Your task to perform on an android device: check storage Image 0: 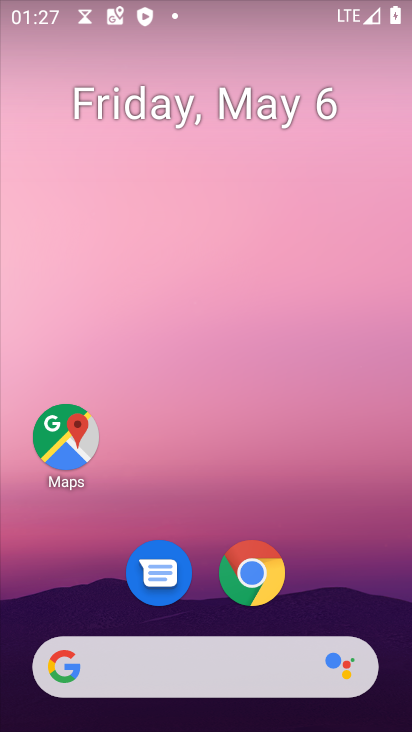
Step 0: drag from (311, 579) to (331, 232)
Your task to perform on an android device: check storage Image 1: 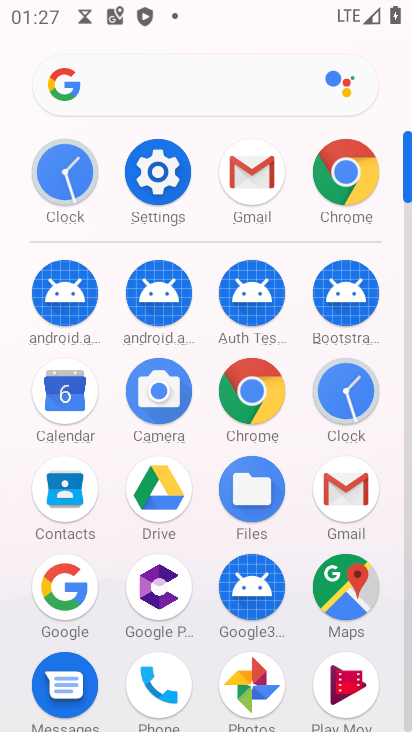
Step 1: click (136, 173)
Your task to perform on an android device: check storage Image 2: 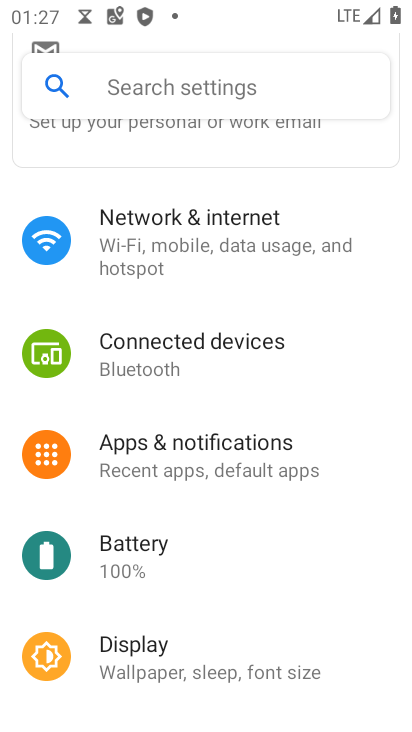
Step 2: drag from (145, 668) to (248, 351)
Your task to perform on an android device: check storage Image 3: 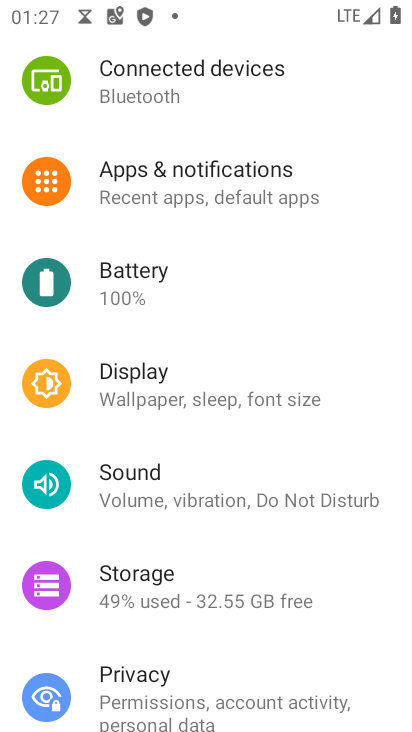
Step 3: click (152, 597)
Your task to perform on an android device: check storage Image 4: 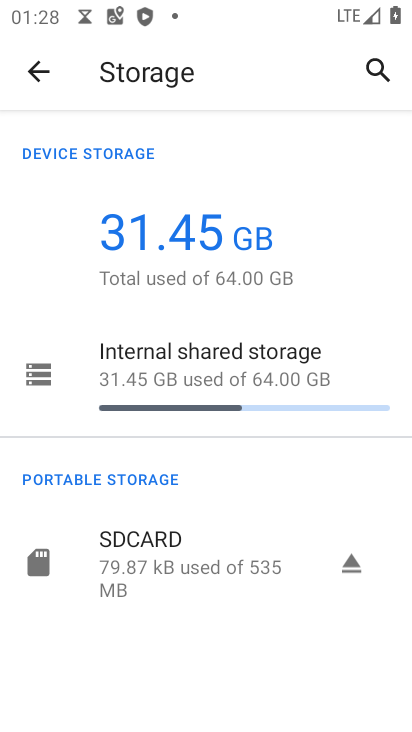
Step 4: task complete